Your task to perform on an android device: turn on location history Image 0: 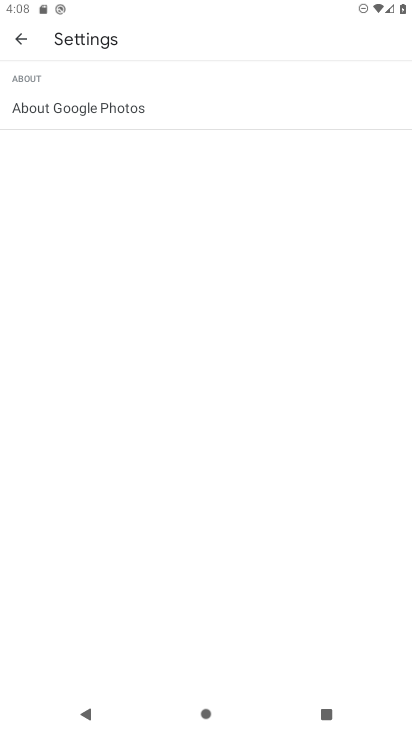
Step 0: press home button
Your task to perform on an android device: turn on location history Image 1: 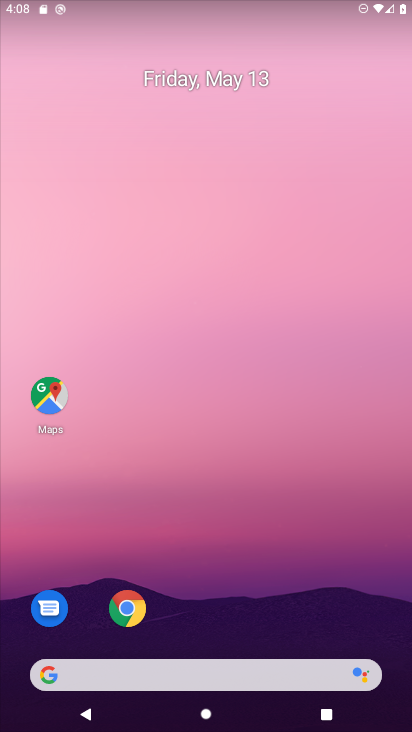
Step 1: drag from (223, 666) to (221, 54)
Your task to perform on an android device: turn on location history Image 2: 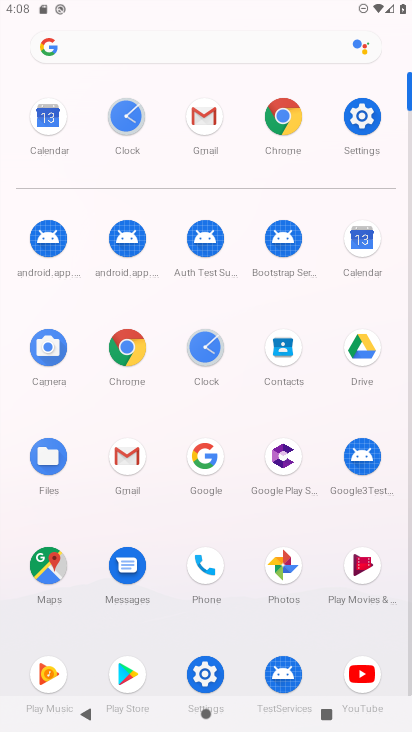
Step 2: click (363, 120)
Your task to perform on an android device: turn on location history Image 3: 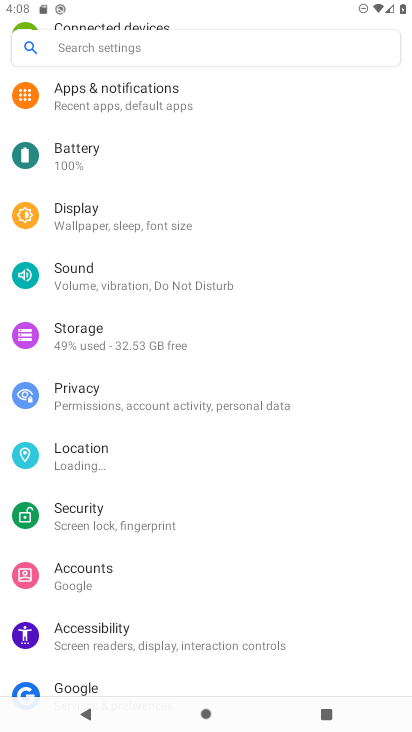
Step 3: click (113, 461)
Your task to perform on an android device: turn on location history Image 4: 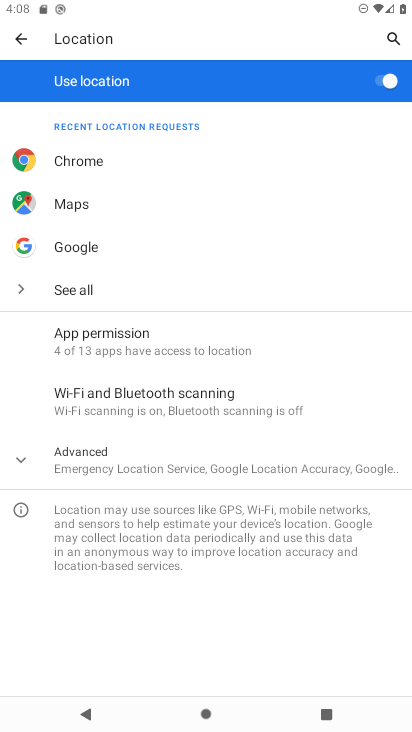
Step 4: click (123, 451)
Your task to perform on an android device: turn on location history Image 5: 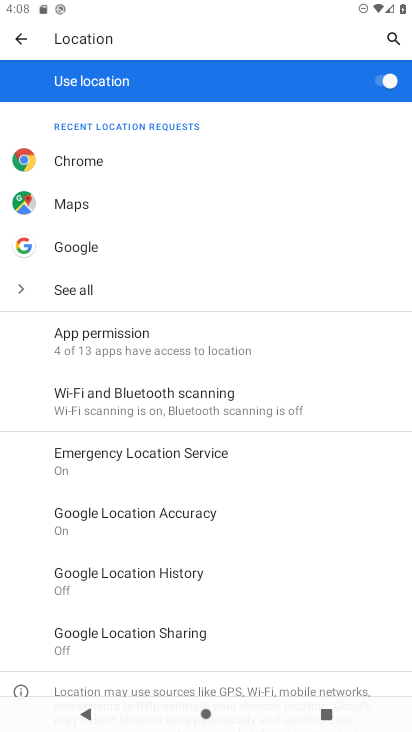
Step 5: click (167, 579)
Your task to perform on an android device: turn on location history Image 6: 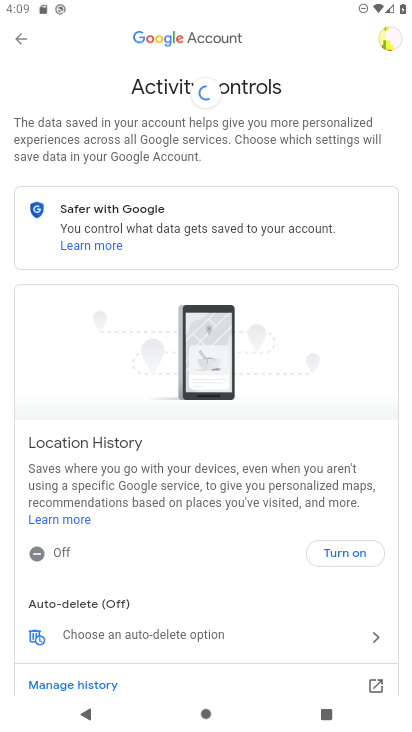
Step 6: click (342, 553)
Your task to perform on an android device: turn on location history Image 7: 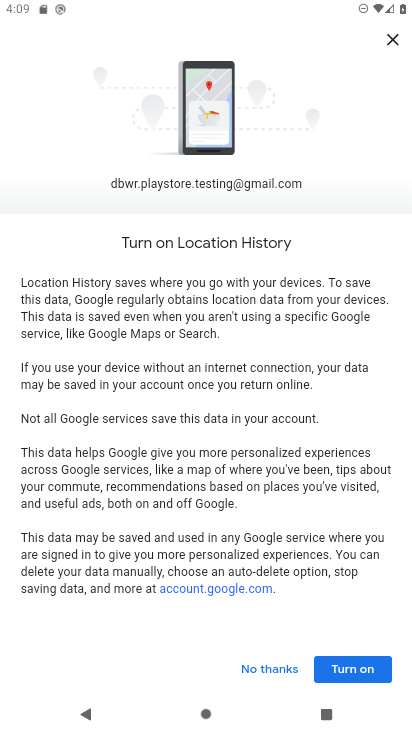
Step 7: click (359, 671)
Your task to perform on an android device: turn on location history Image 8: 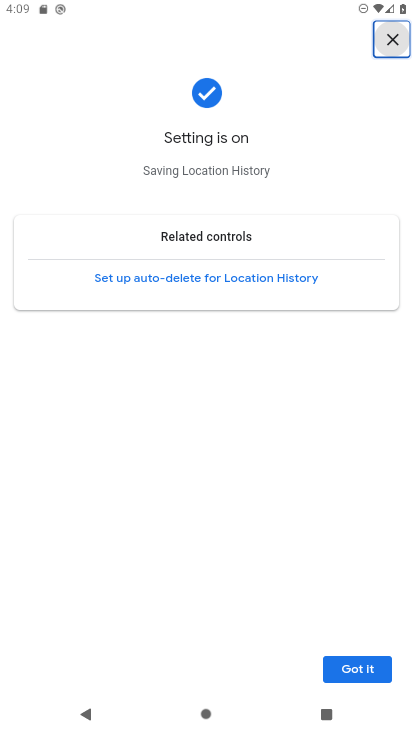
Step 8: task complete